Your task to perform on an android device: show emergency info Image 0: 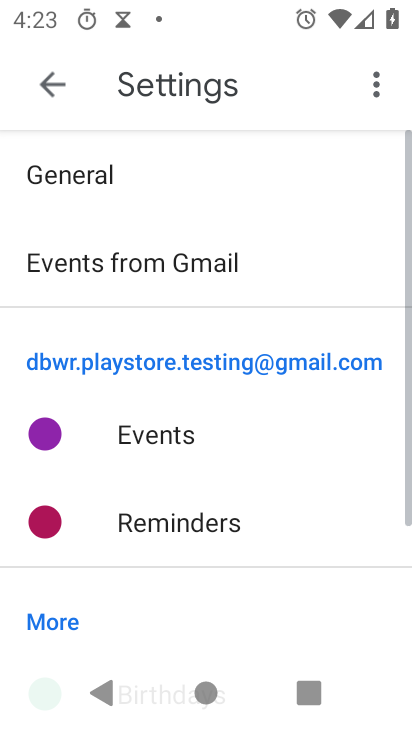
Step 0: drag from (244, 0) to (278, 634)
Your task to perform on an android device: show emergency info Image 1: 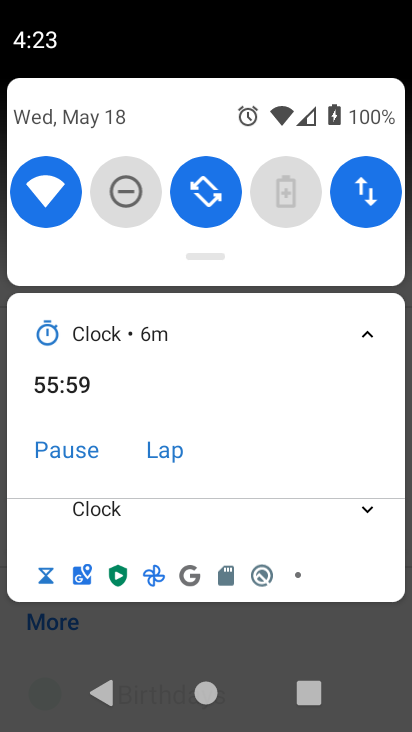
Step 1: drag from (246, 222) to (222, 518)
Your task to perform on an android device: show emergency info Image 2: 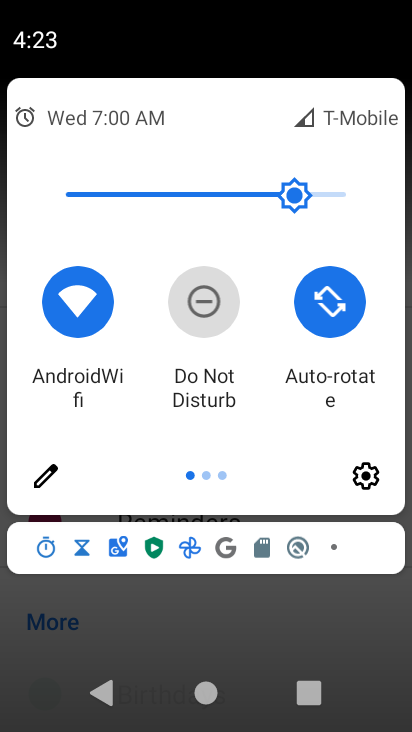
Step 2: drag from (369, 382) to (60, 411)
Your task to perform on an android device: show emergency info Image 3: 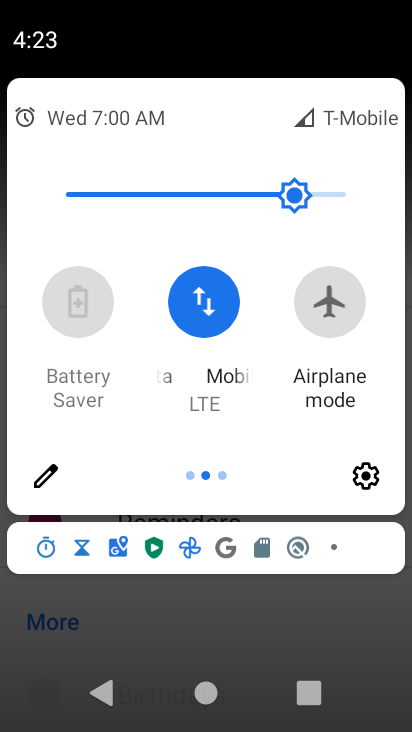
Step 3: press home button
Your task to perform on an android device: show emergency info Image 4: 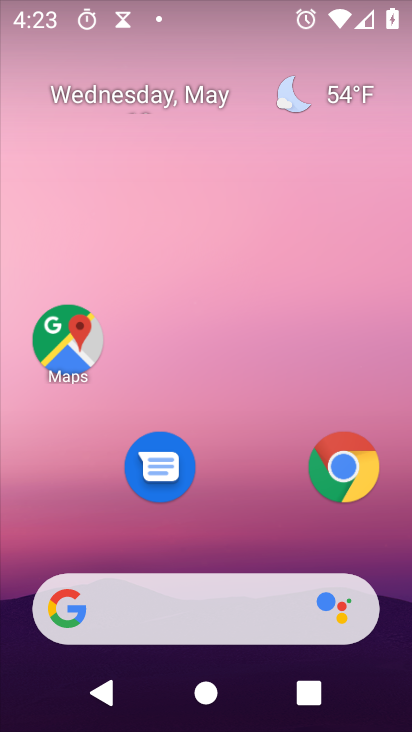
Step 4: drag from (253, 541) to (188, 11)
Your task to perform on an android device: show emergency info Image 5: 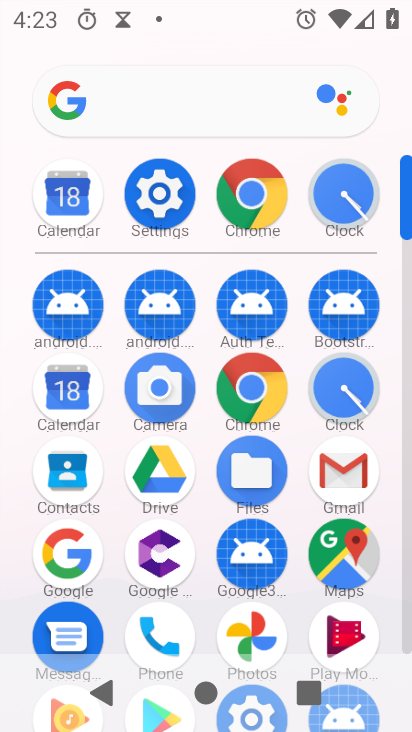
Step 5: click (162, 193)
Your task to perform on an android device: show emergency info Image 6: 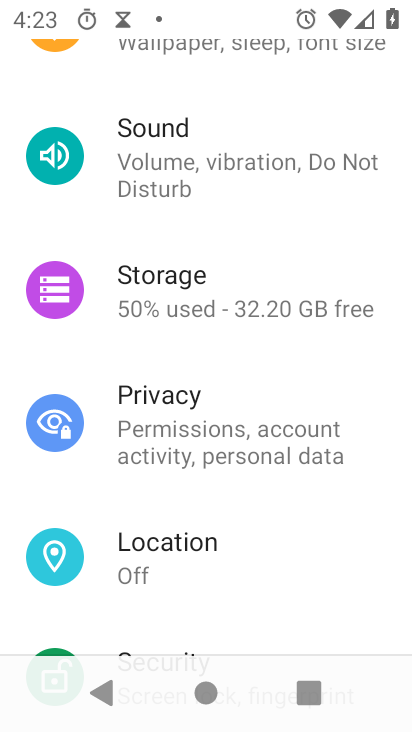
Step 6: drag from (239, 594) to (210, 182)
Your task to perform on an android device: show emergency info Image 7: 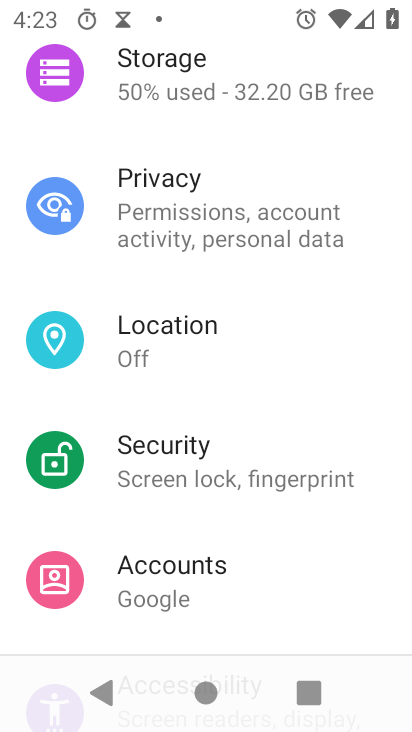
Step 7: drag from (271, 598) to (246, 176)
Your task to perform on an android device: show emergency info Image 8: 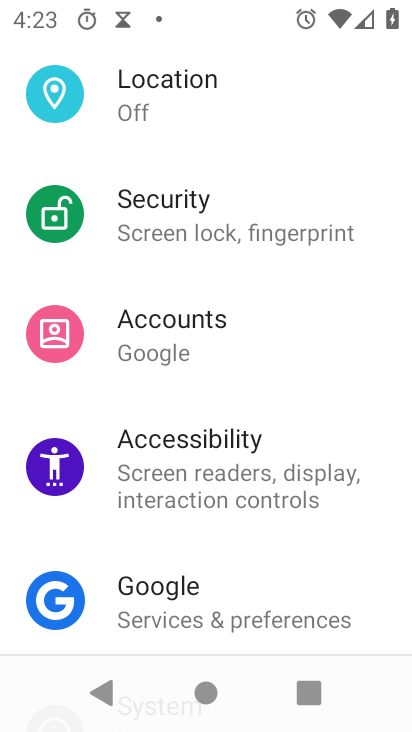
Step 8: drag from (294, 527) to (263, 17)
Your task to perform on an android device: show emergency info Image 9: 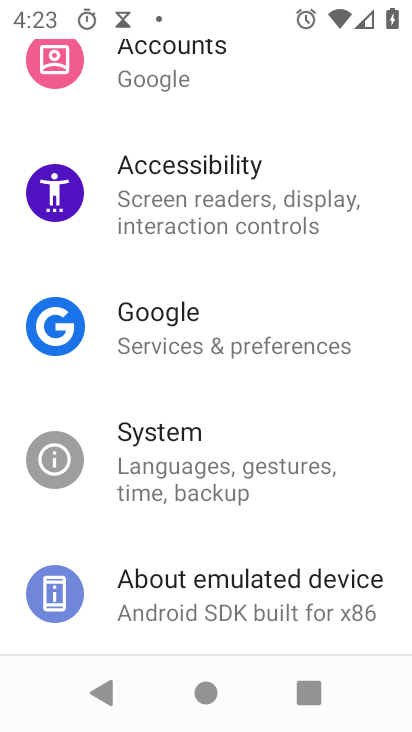
Step 9: click (247, 575)
Your task to perform on an android device: show emergency info Image 10: 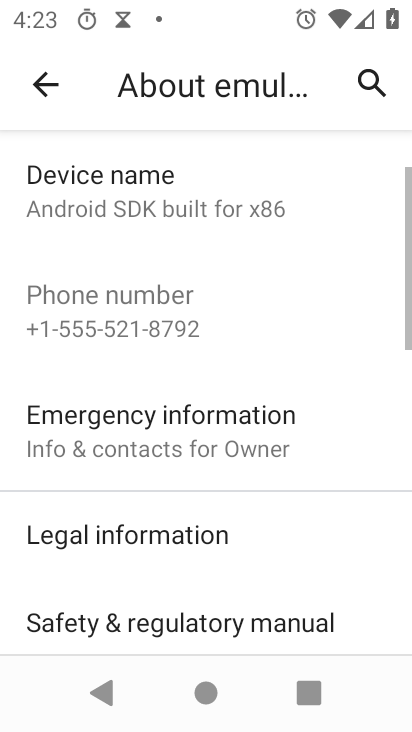
Step 10: click (240, 461)
Your task to perform on an android device: show emergency info Image 11: 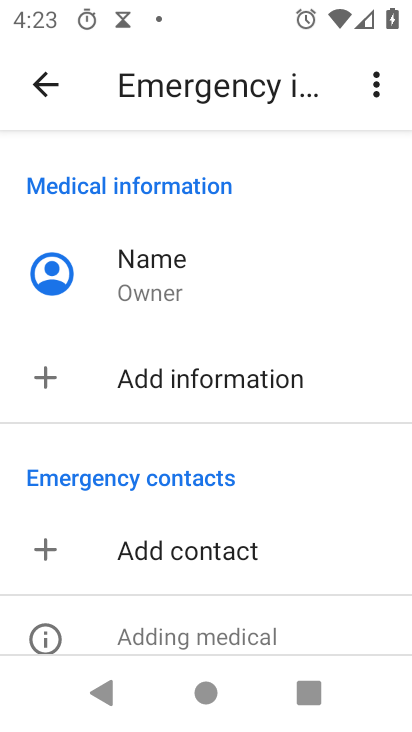
Step 11: task complete